Your task to perform on an android device: turn off location history Image 0: 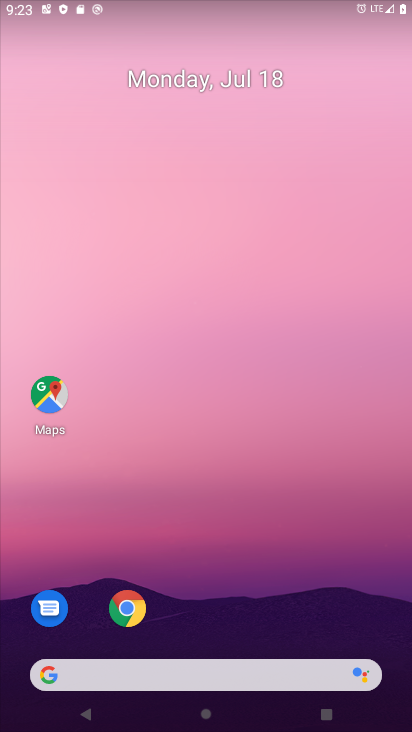
Step 0: drag from (248, 704) to (273, 200)
Your task to perform on an android device: turn off location history Image 1: 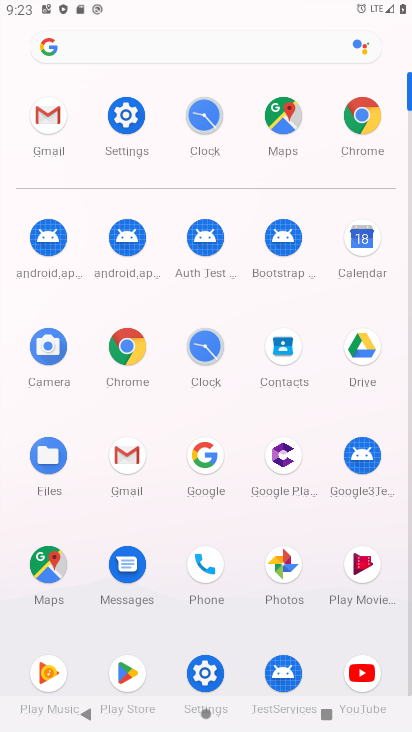
Step 1: click (199, 676)
Your task to perform on an android device: turn off location history Image 2: 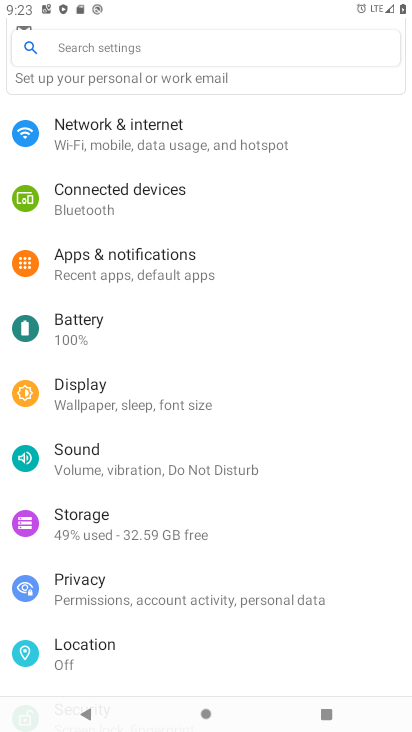
Step 2: click (81, 652)
Your task to perform on an android device: turn off location history Image 3: 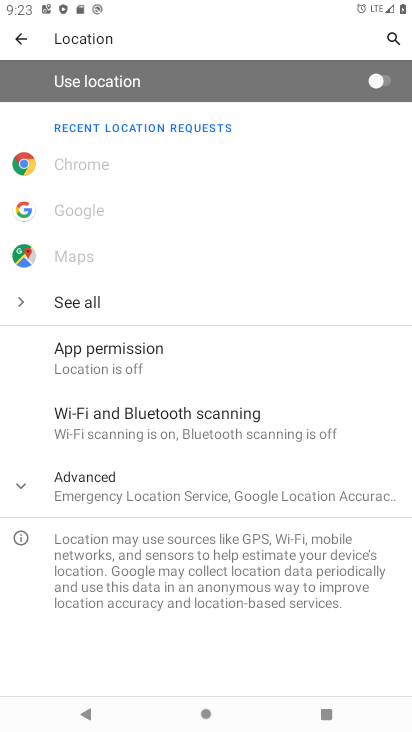
Step 3: click (124, 486)
Your task to perform on an android device: turn off location history Image 4: 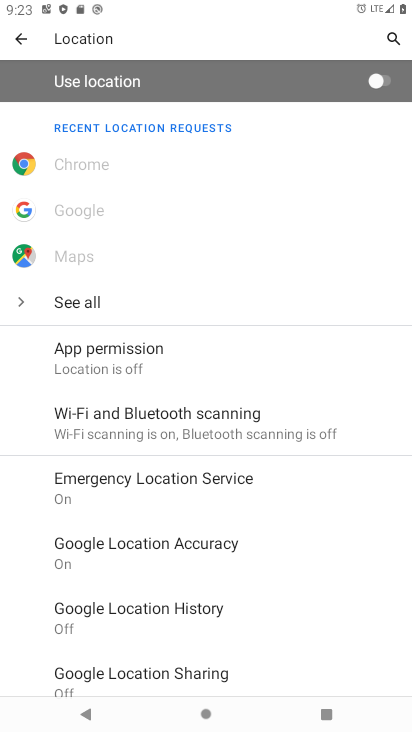
Step 4: click (142, 609)
Your task to perform on an android device: turn off location history Image 5: 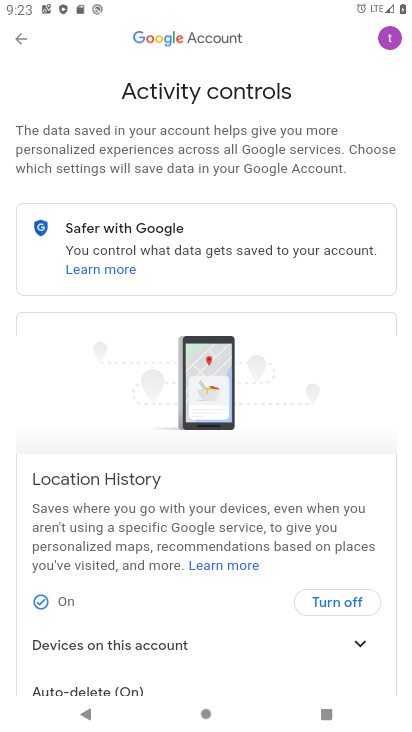
Step 5: click (324, 609)
Your task to perform on an android device: turn off location history Image 6: 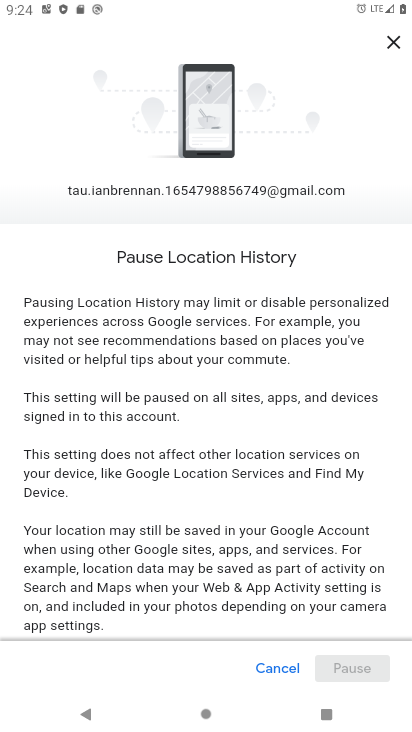
Step 6: drag from (248, 603) to (224, 204)
Your task to perform on an android device: turn off location history Image 7: 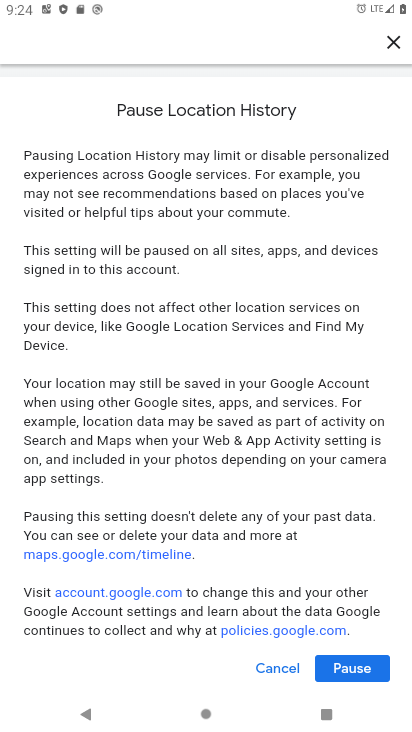
Step 7: click (354, 662)
Your task to perform on an android device: turn off location history Image 8: 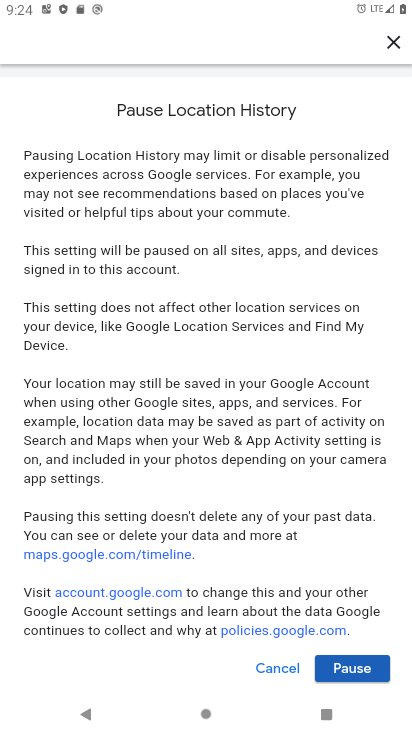
Step 8: click (355, 664)
Your task to perform on an android device: turn off location history Image 9: 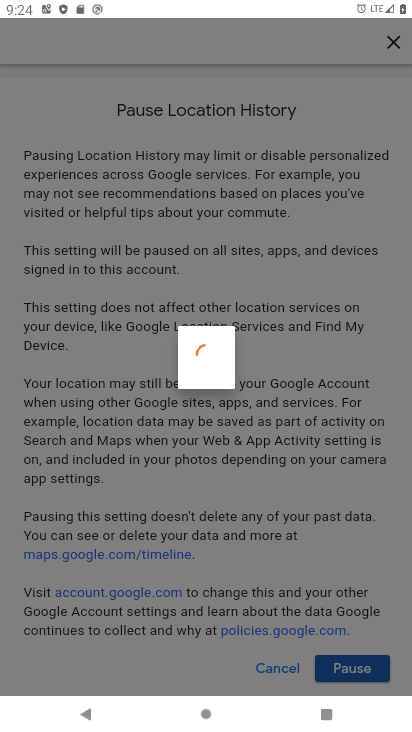
Step 9: click (355, 668)
Your task to perform on an android device: turn off location history Image 10: 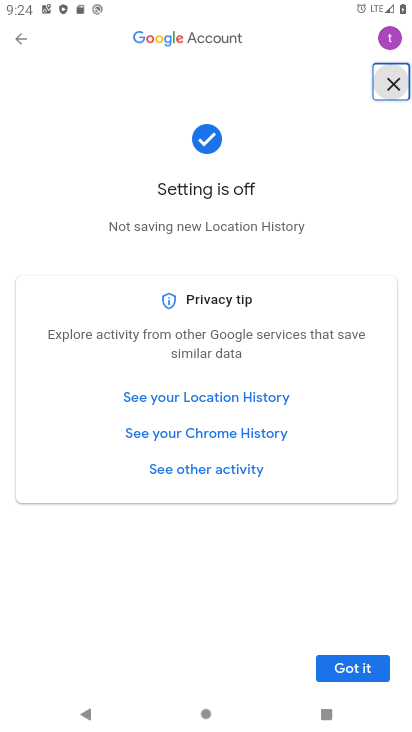
Step 10: task complete